Your task to perform on an android device: check battery use Image 0: 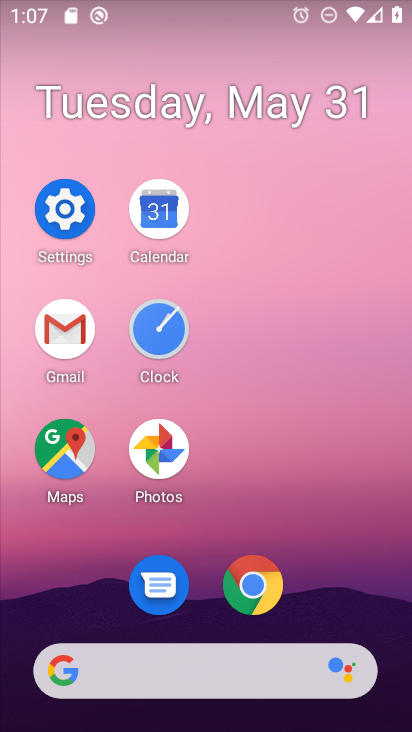
Step 0: click (72, 218)
Your task to perform on an android device: check battery use Image 1: 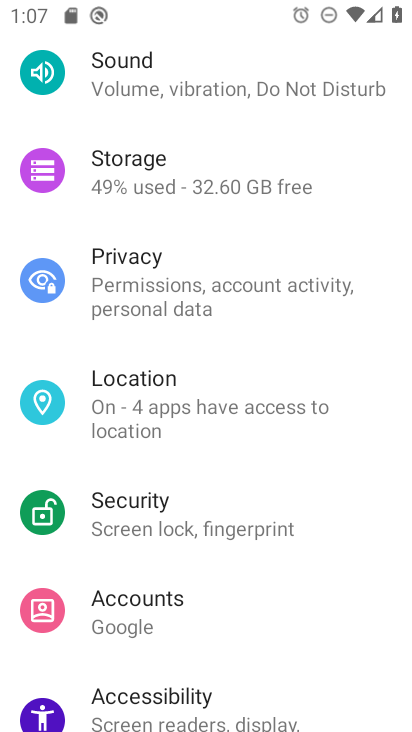
Step 1: drag from (251, 215) to (326, 602)
Your task to perform on an android device: check battery use Image 2: 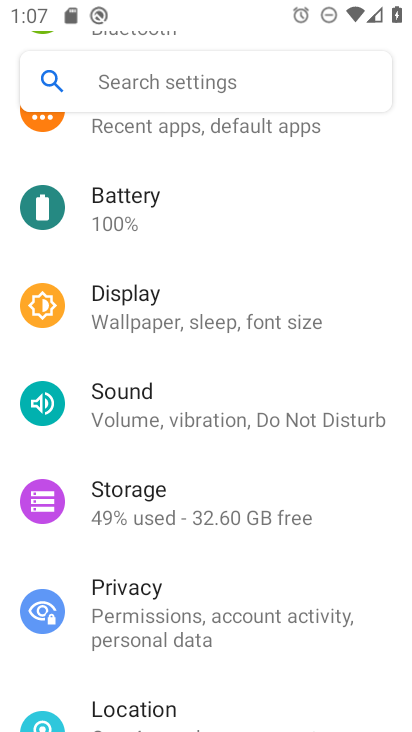
Step 2: click (228, 196)
Your task to perform on an android device: check battery use Image 3: 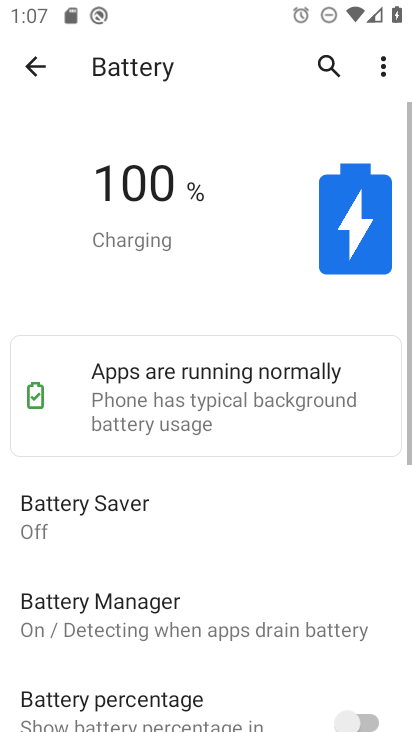
Step 3: click (386, 63)
Your task to perform on an android device: check battery use Image 4: 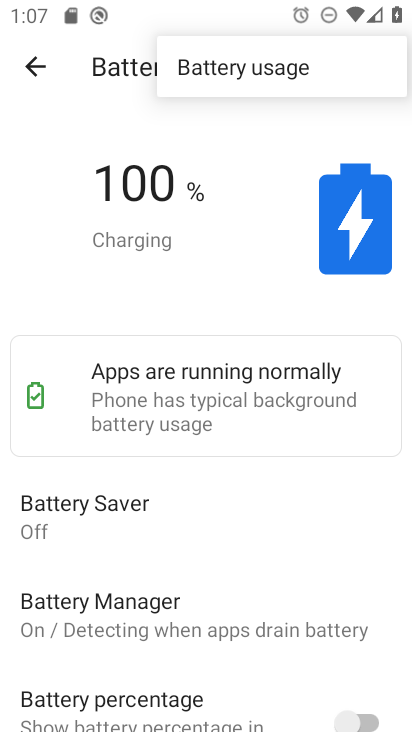
Step 4: click (353, 70)
Your task to perform on an android device: check battery use Image 5: 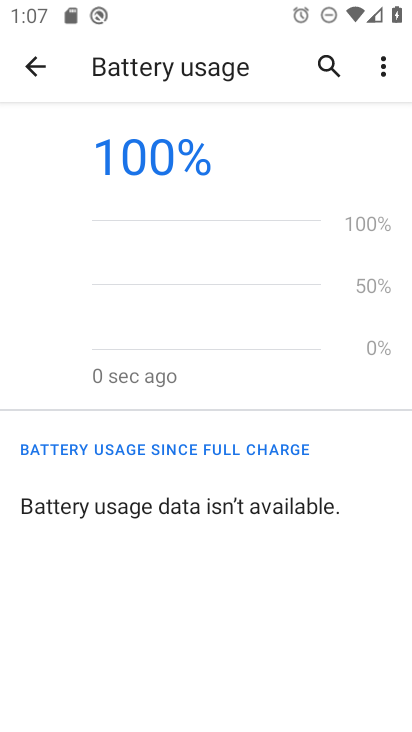
Step 5: task complete